Your task to perform on an android device: Open location settings Image 0: 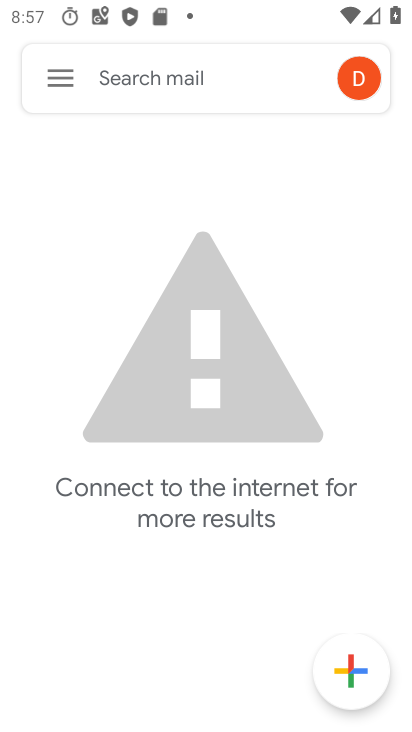
Step 0: press home button
Your task to perform on an android device: Open location settings Image 1: 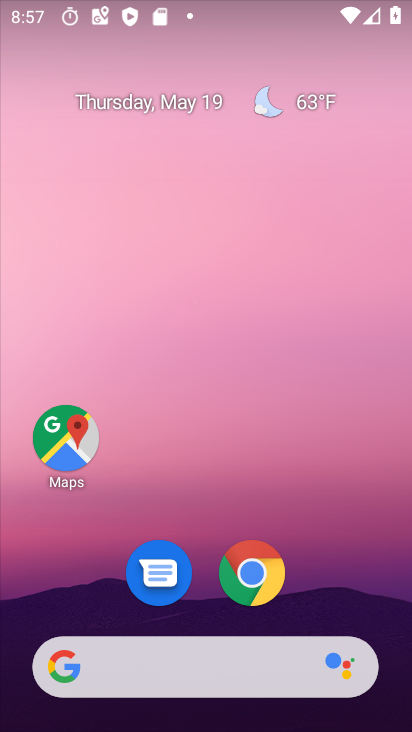
Step 1: drag from (316, 579) to (195, 29)
Your task to perform on an android device: Open location settings Image 2: 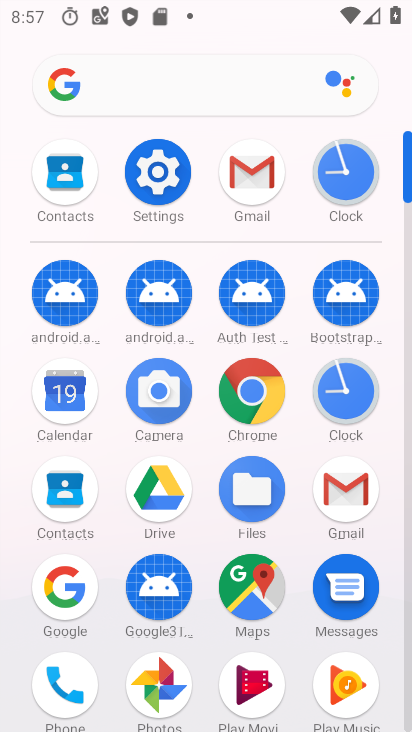
Step 2: click (150, 209)
Your task to perform on an android device: Open location settings Image 3: 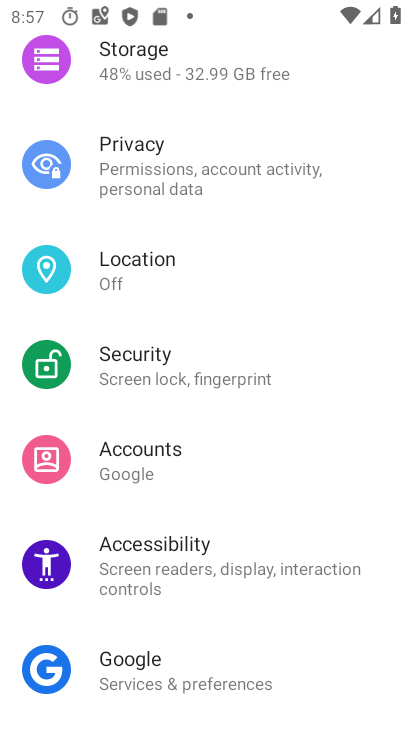
Step 3: click (139, 272)
Your task to perform on an android device: Open location settings Image 4: 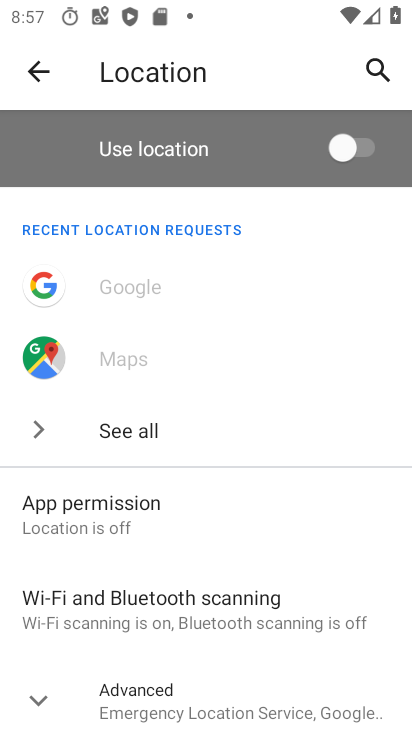
Step 4: task complete